Your task to perform on an android device: find which apps use the phone's location Image 0: 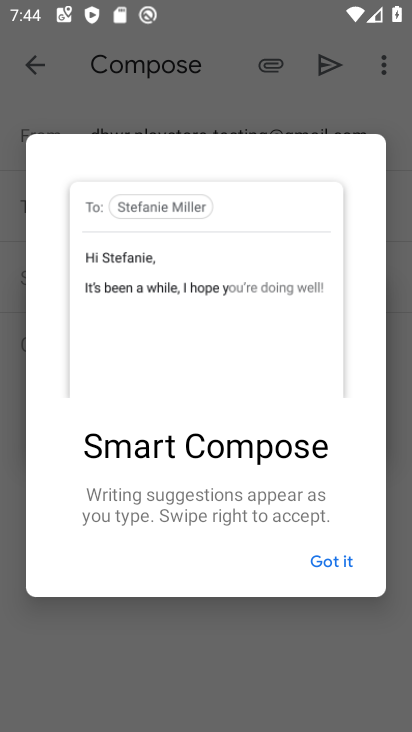
Step 0: press home button
Your task to perform on an android device: find which apps use the phone's location Image 1: 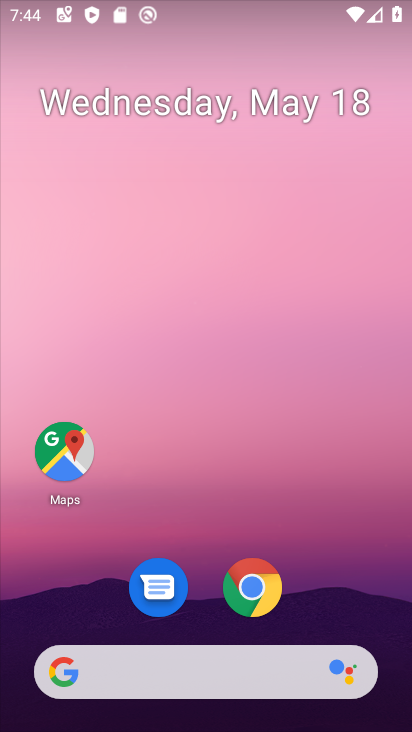
Step 1: drag from (199, 617) to (204, 145)
Your task to perform on an android device: find which apps use the phone's location Image 2: 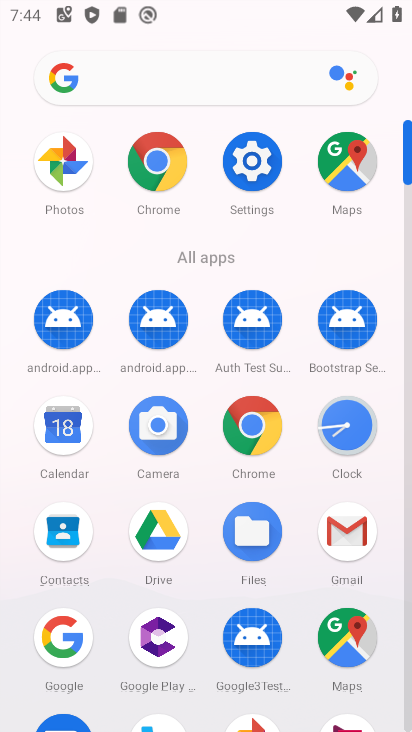
Step 2: click (254, 174)
Your task to perform on an android device: find which apps use the phone's location Image 3: 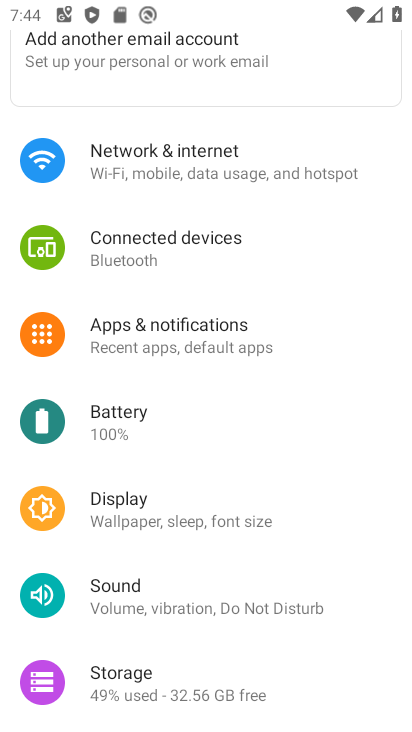
Step 3: drag from (254, 174) to (220, 662)
Your task to perform on an android device: find which apps use the phone's location Image 4: 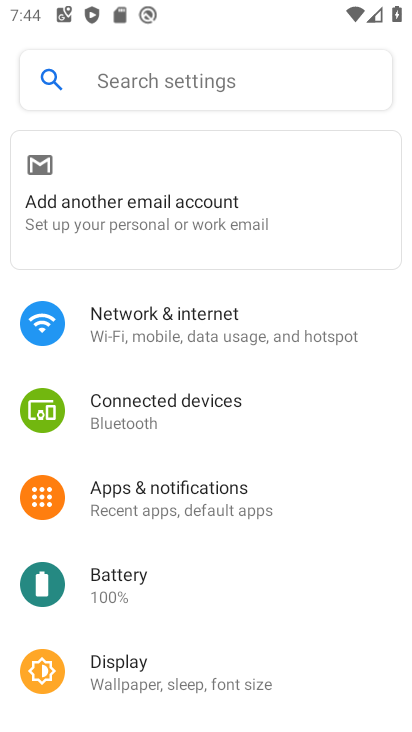
Step 4: drag from (220, 662) to (240, 35)
Your task to perform on an android device: find which apps use the phone's location Image 5: 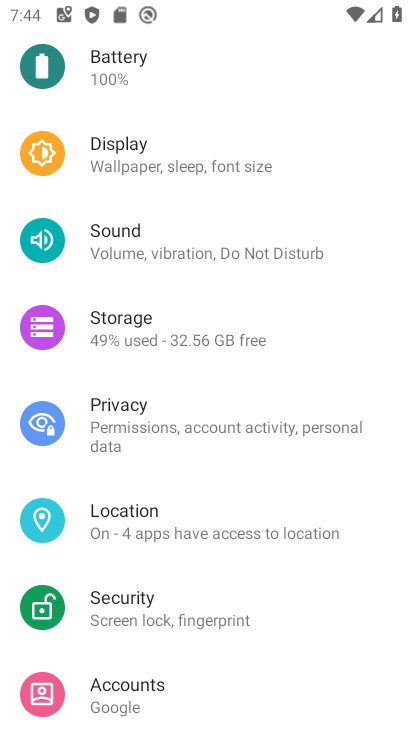
Step 5: click (88, 514)
Your task to perform on an android device: find which apps use the phone's location Image 6: 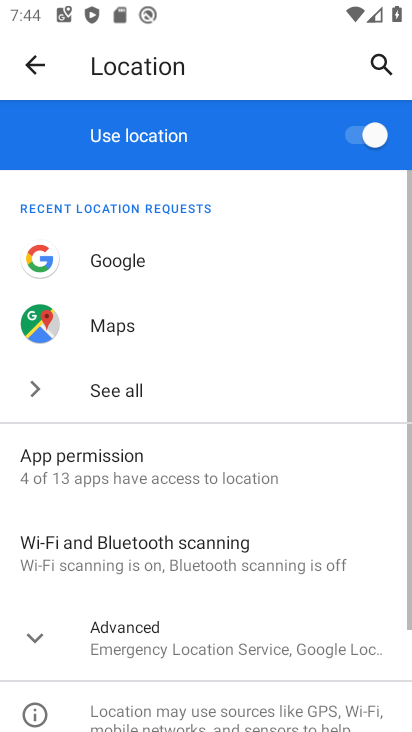
Step 6: click (100, 405)
Your task to perform on an android device: find which apps use the phone's location Image 7: 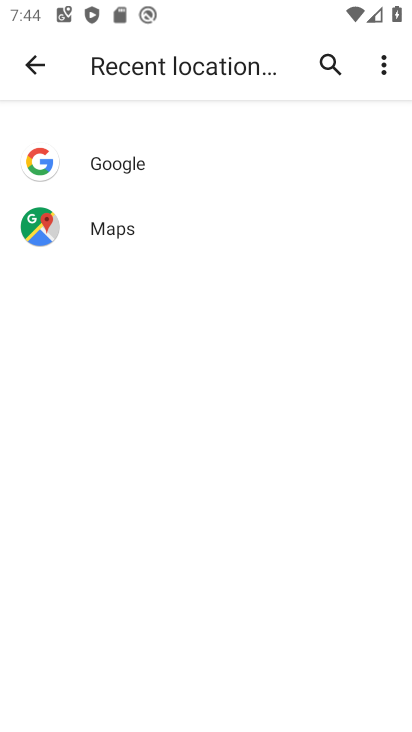
Step 7: task complete